Your task to perform on an android device: Open internet settings Image 0: 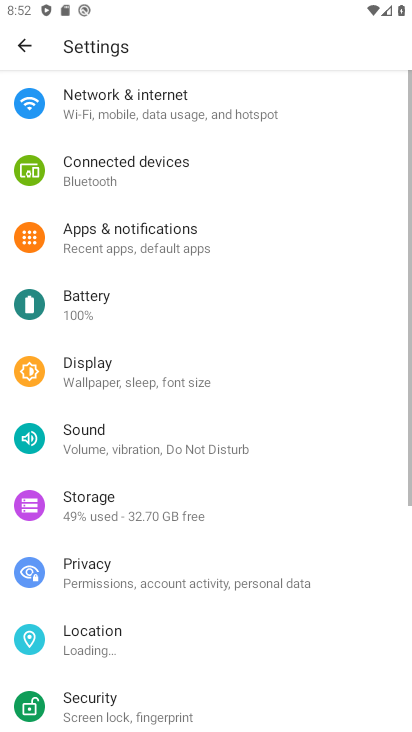
Step 0: click (148, 119)
Your task to perform on an android device: Open internet settings Image 1: 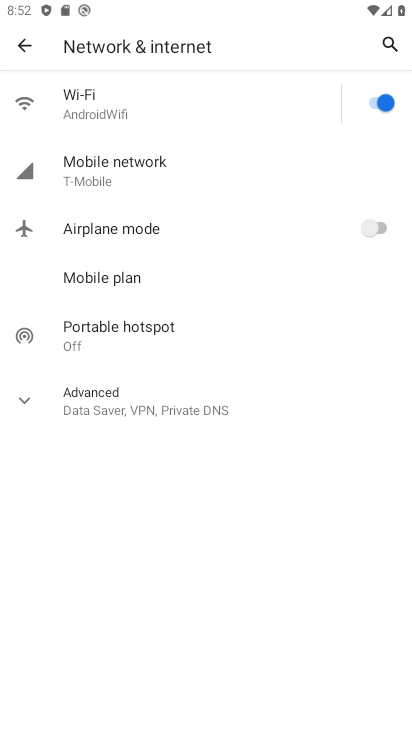
Step 1: click (155, 117)
Your task to perform on an android device: Open internet settings Image 2: 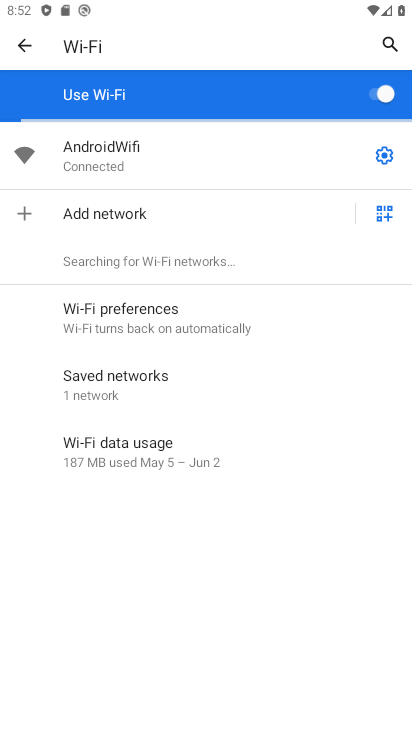
Step 2: click (150, 162)
Your task to perform on an android device: Open internet settings Image 3: 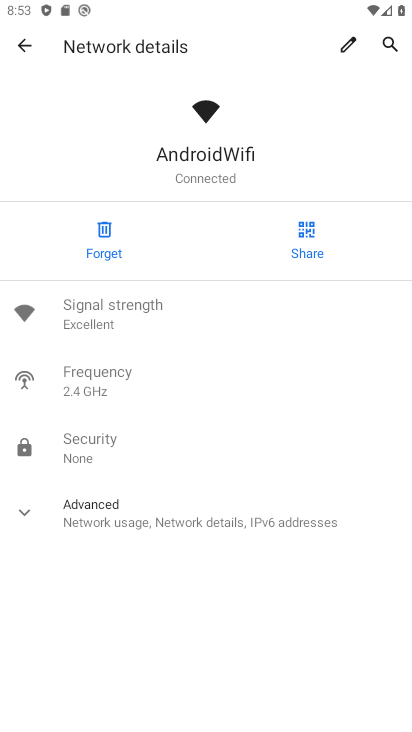
Step 3: task complete